Your task to perform on an android device: Show me productivity apps on the Play Store Image 0: 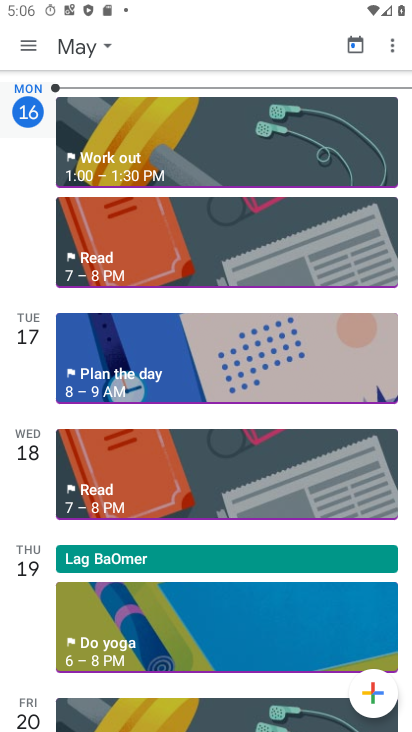
Step 0: press home button
Your task to perform on an android device: Show me productivity apps on the Play Store Image 1: 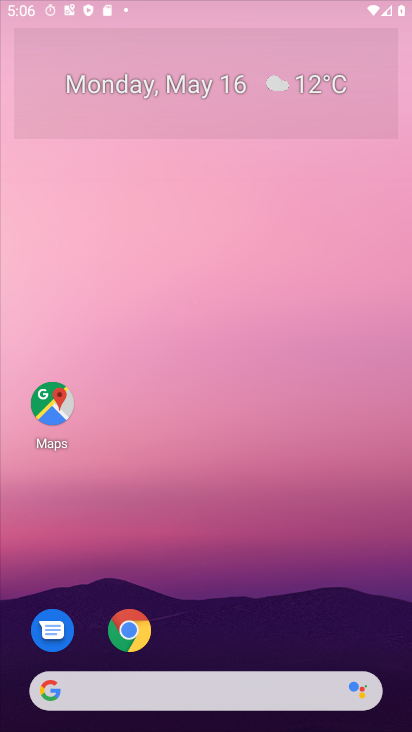
Step 1: drag from (284, 543) to (268, 34)
Your task to perform on an android device: Show me productivity apps on the Play Store Image 2: 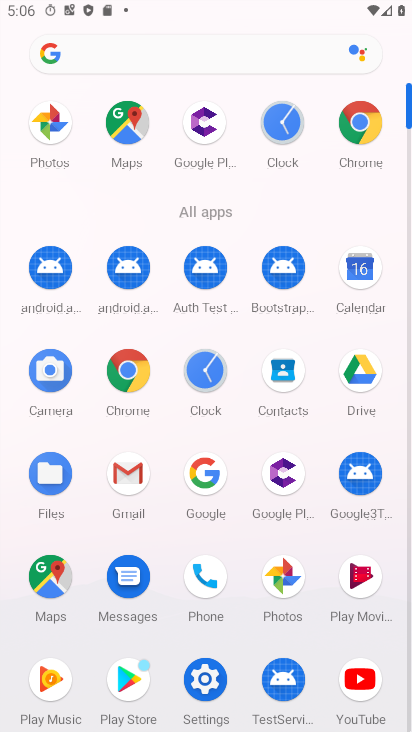
Step 2: drag from (247, 273) to (305, 80)
Your task to perform on an android device: Show me productivity apps on the Play Store Image 3: 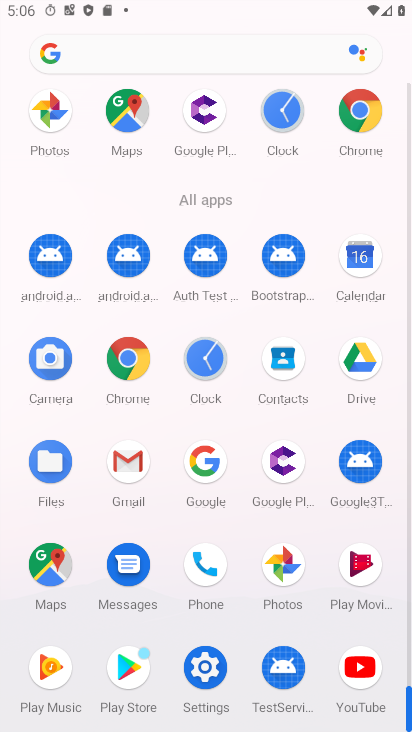
Step 3: drag from (326, 571) to (344, 143)
Your task to perform on an android device: Show me productivity apps on the Play Store Image 4: 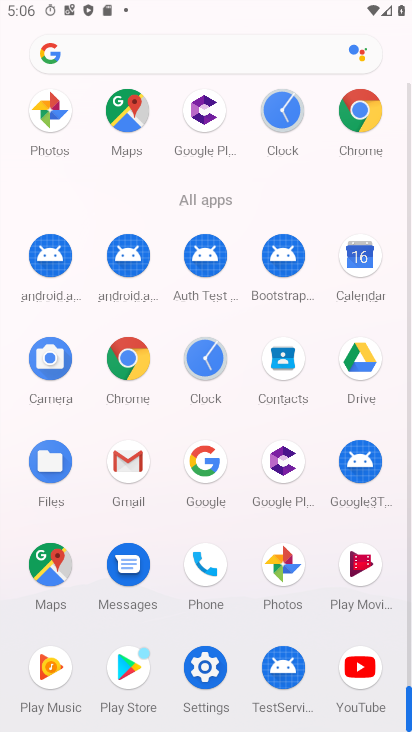
Step 4: drag from (325, 168) to (322, 236)
Your task to perform on an android device: Show me productivity apps on the Play Store Image 5: 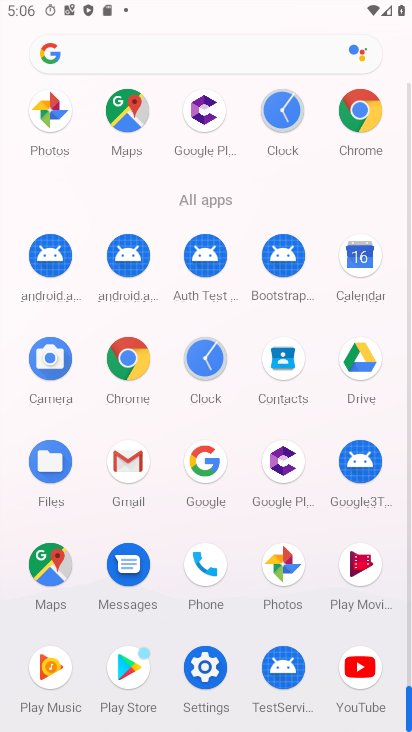
Step 5: click (141, 624)
Your task to perform on an android device: Show me productivity apps on the Play Store Image 6: 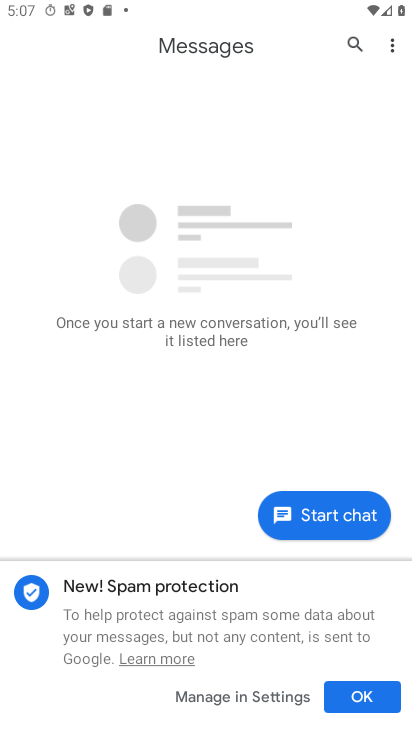
Step 6: press home button
Your task to perform on an android device: Show me productivity apps on the Play Store Image 7: 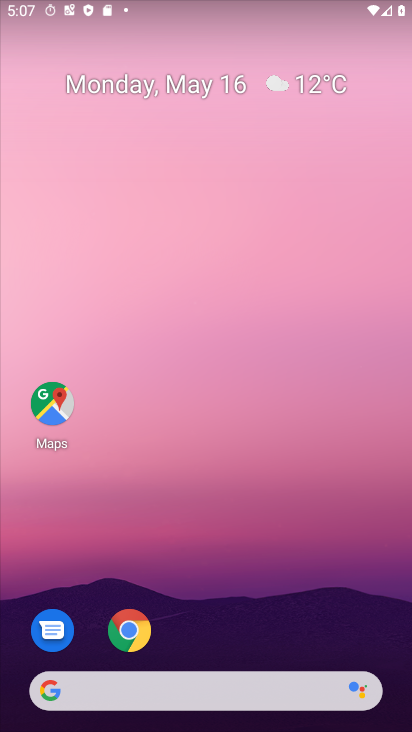
Step 7: drag from (296, 554) to (253, 219)
Your task to perform on an android device: Show me productivity apps on the Play Store Image 8: 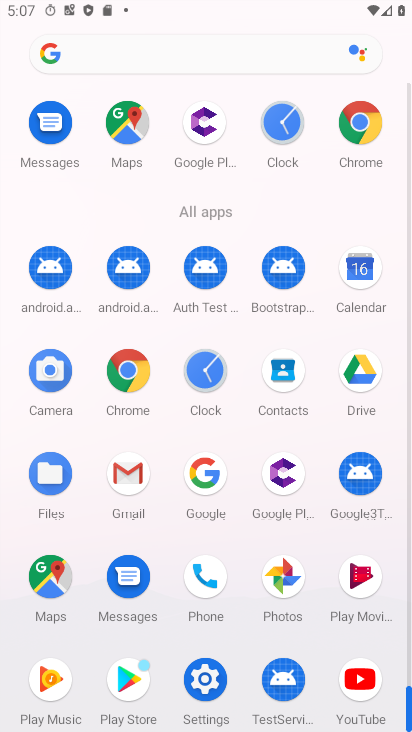
Step 8: click (126, 674)
Your task to perform on an android device: Show me productivity apps on the Play Store Image 9: 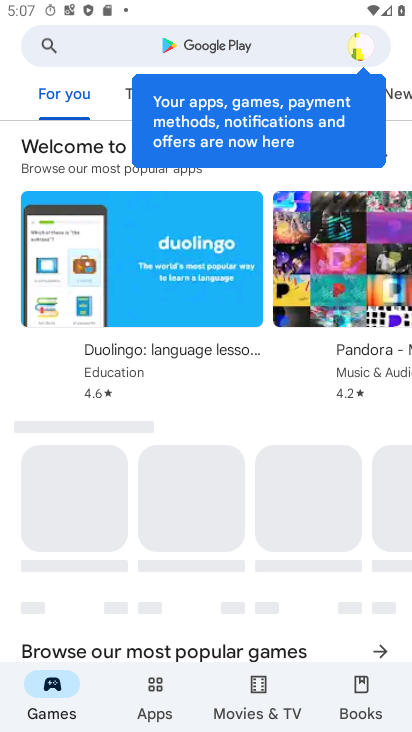
Step 9: click (152, 707)
Your task to perform on an android device: Show me productivity apps on the Play Store Image 10: 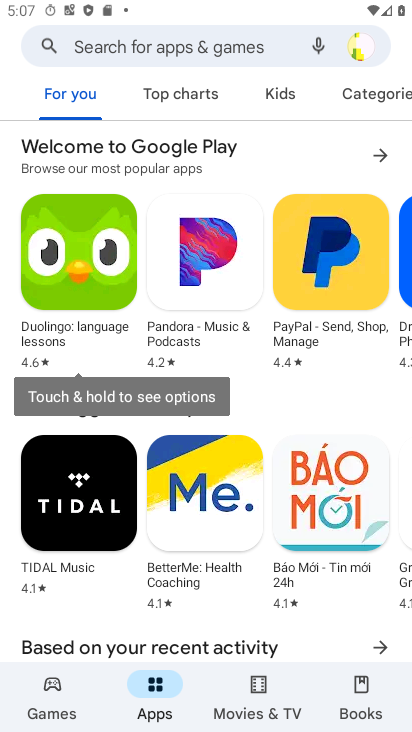
Step 10: task complete